Your task to perform on an android device: toggle translation in the chrome app Image 0: 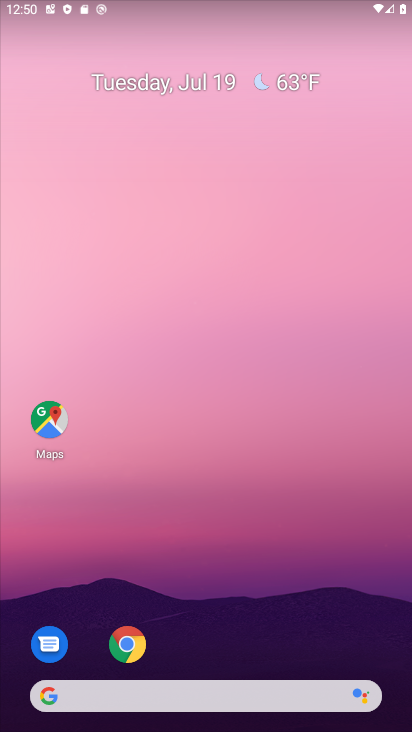
Step 0: click (129, 642)
Your task to perform on an android device: toggle translation in the chrome app Image 1: 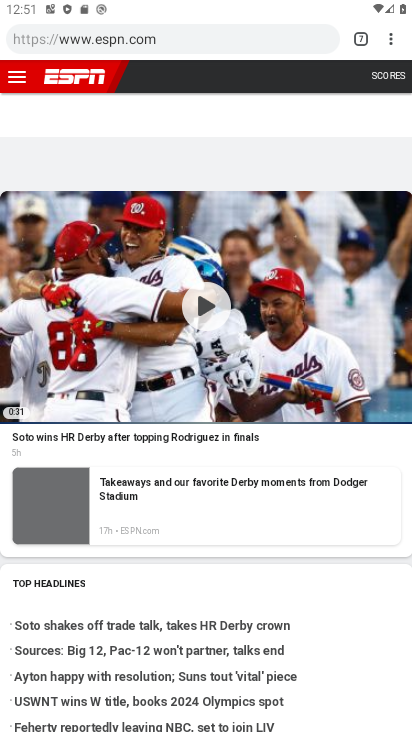
Step 1: click (389, 39)
Your task to perform on an android device: toggle translation in the chrome app Image 2: 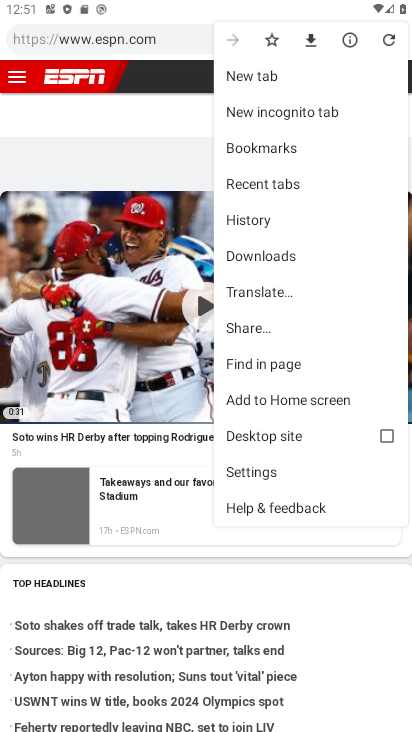
Step 2: click (253, 473)
Your task to perform on an android device: toggle translation in the chrome app Image 3: 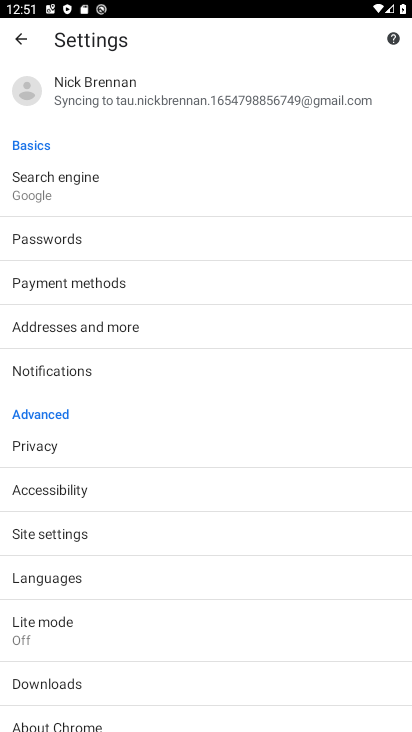
Step 3: click (43, 572)
Your task to perform on an android device: toggle translation in the chrome app Image 4: 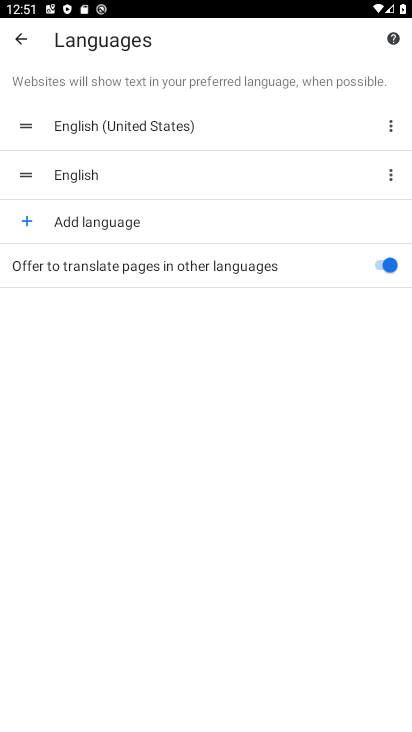
Step 4: click (381, 267)
Your task to perform on an android device: toggle translation in the chrome app Image 5: 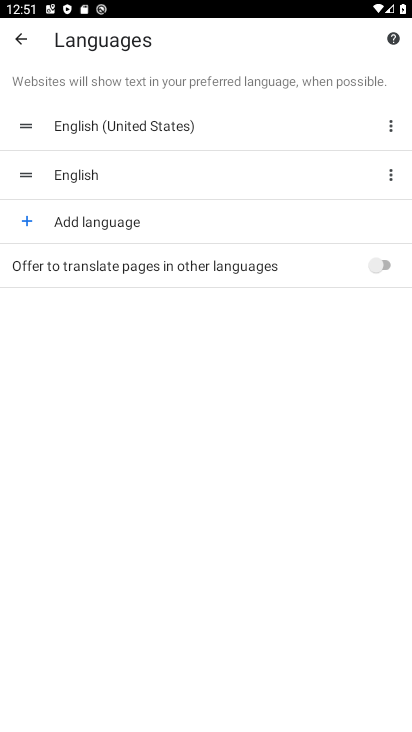
Step 5: task complete